Your task to perform on an android device: turn on javascript in the chrome app Image 0: 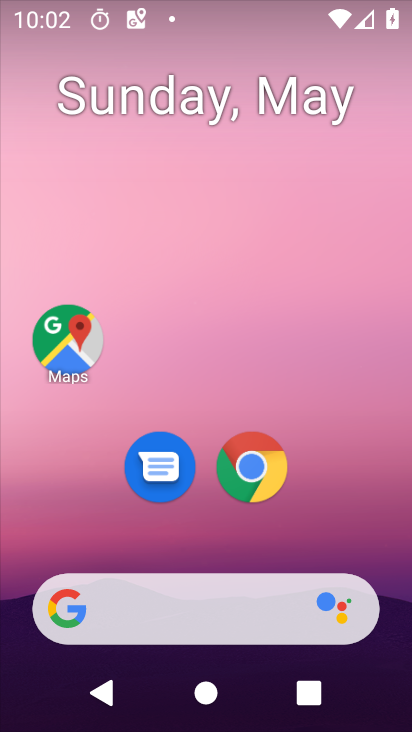
Step 0: click (233, 476)
Your task to perform on an android device: turn on javascript in the chrome app Image 1: 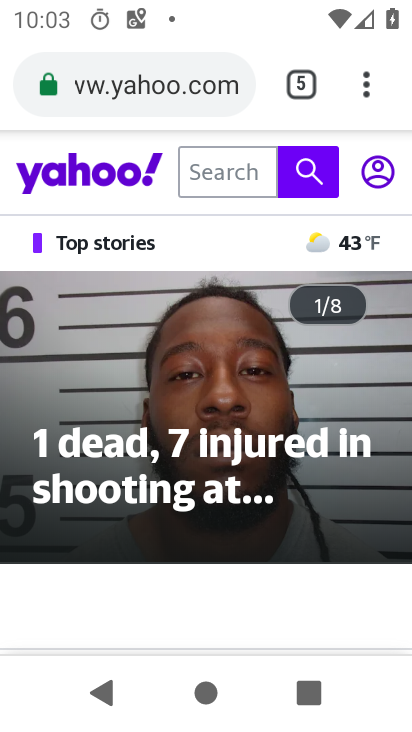
Step 1: drag from (361, 92) to (183, 518)
Your task to perform on an android device: turn on javascript in the chrome app Image 2: 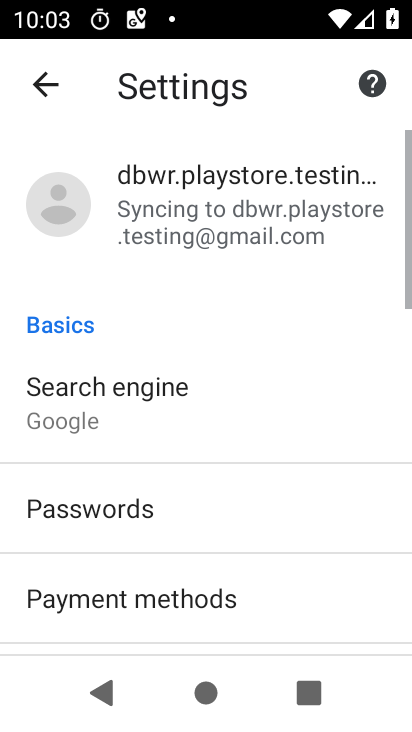
Step 2: drag from (277, 571) to (227, 221)
Your task to perform on an android device: turn on javascript in the chrome app Image 3: 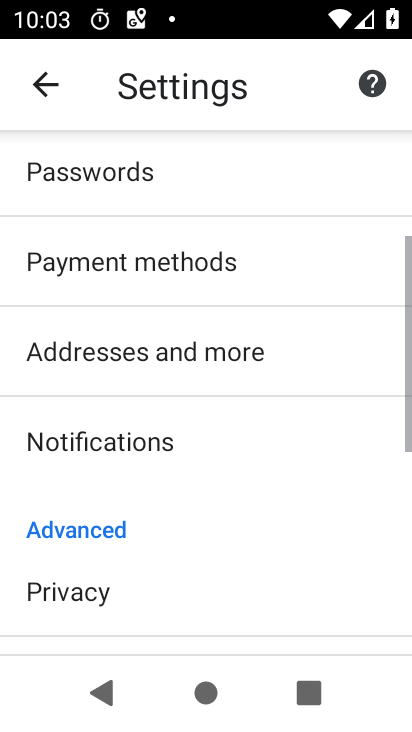
Step 3: drag from (227, 521) to (241, 248)
Your task to perform on an android device: turn on javascript in the chrome app Image 4: 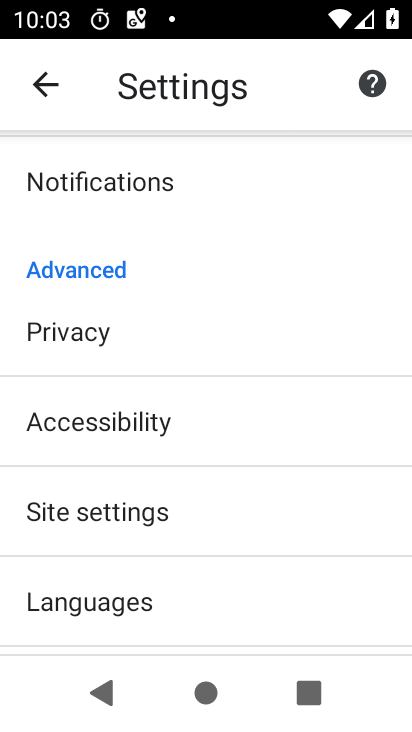
Step 4: drag from (207, 550) to (228, 323)
Your task to perform on an android device: turn on javascript in the chrome app Image 5: 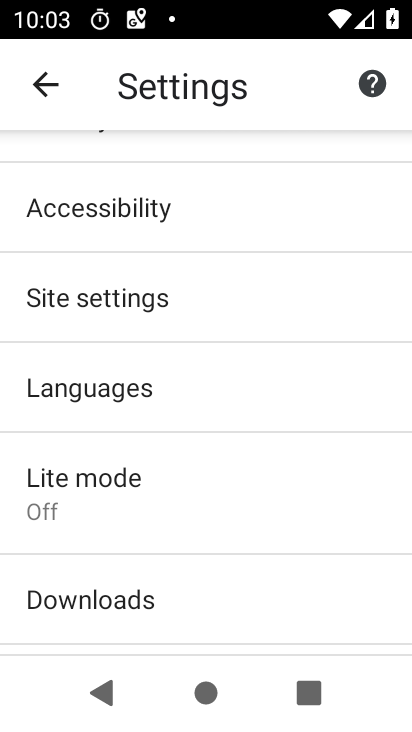
Step 5: drag from (164, 547) to (211, 280)
Your task to perform on an android device: turn on javascript in the chrome app Image 6: 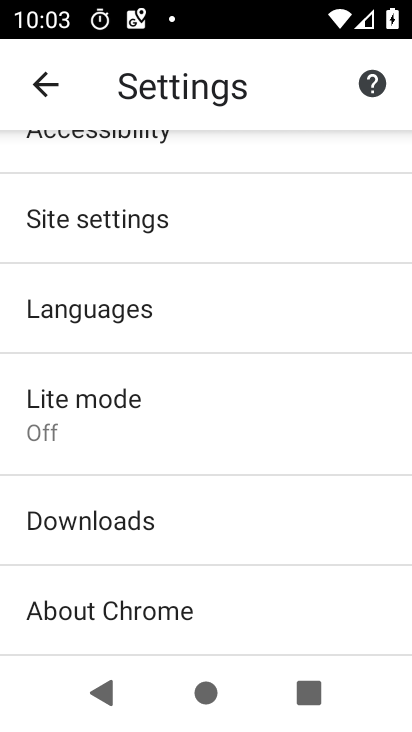
Step 6: click (224, 238)
Your task to perform on an android device: turn on javascript in the chrome app Image 7: 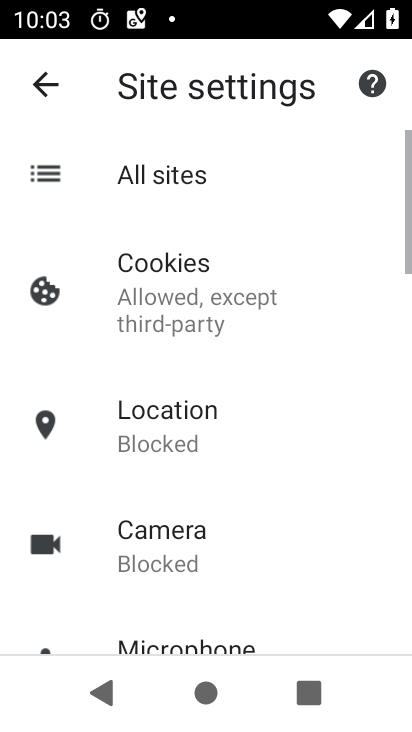
Step 7: drag from (201, 570) to (215, 305)
Your task to perform on an android device: turn on javascript in the chrome app Image 8: 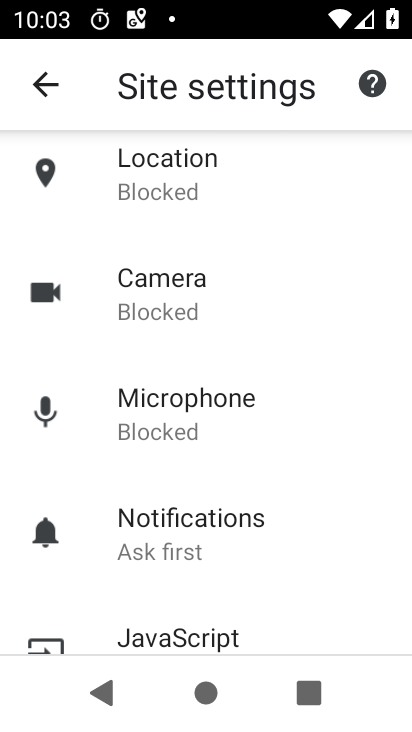
Step 8: drag from (205, 583) to (231, 383)
Your task to perform on an android device: turn on javascript in the chrome app Image 9: 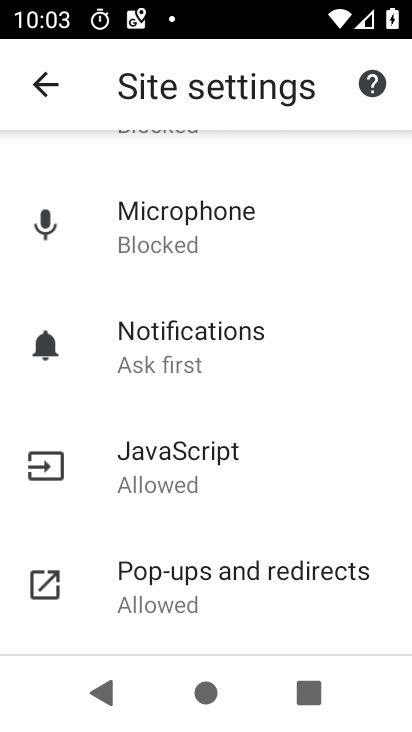
Step 9: click (195, 463)
Your task to perform on an android device: turn on javascript in the chrome app Image 10: 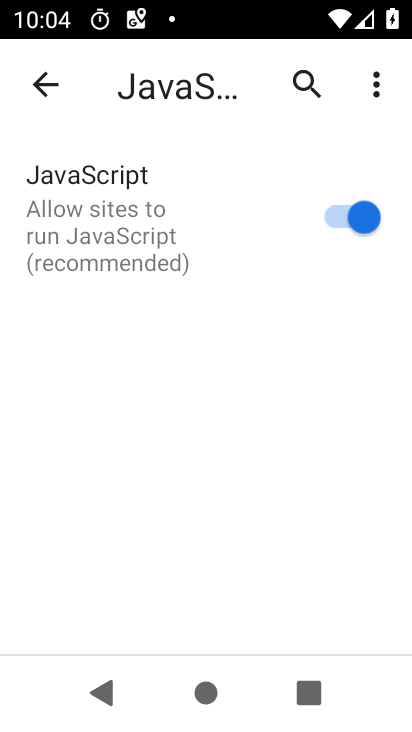
Step 10: task complete